Your task to perform on an android device: move an email to a new category in the gmail app Image 0: 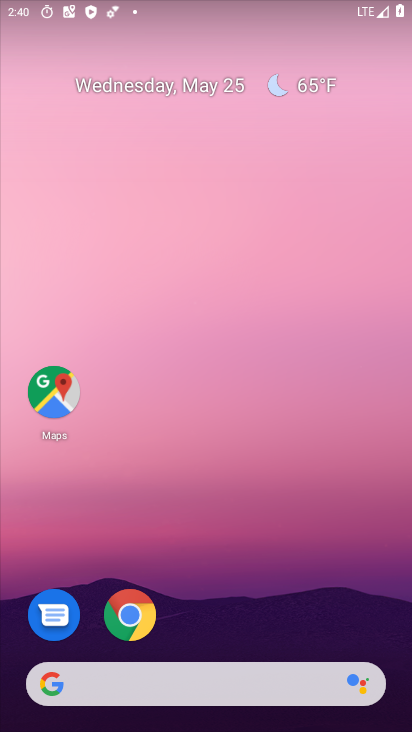
Step 0: click (317, 546)
Your task to perform on an android device: move an email to a new category in the gmail app Image 1: 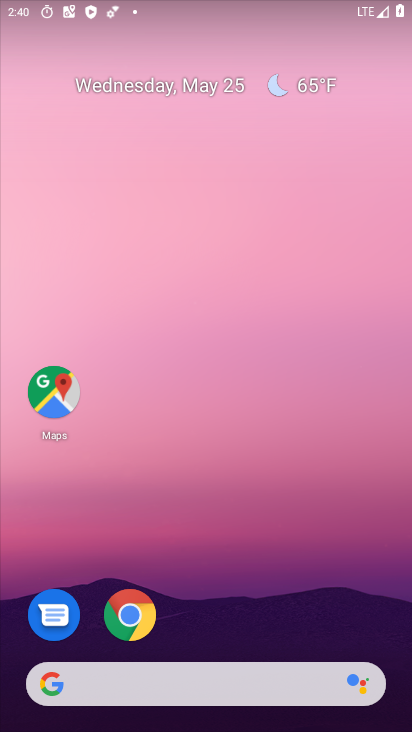
Step 1: drag from (403, 680) to (385, 212)
Your task to perform on an android device: move an email to a new category in the gmail app Image 2: 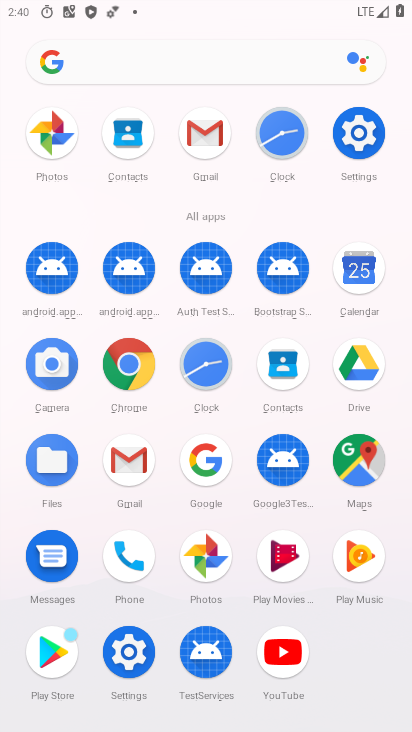
Step 2: click (120, 457)
Your task to perform on an android device: move an email to a new category in the gmail app Image 3: 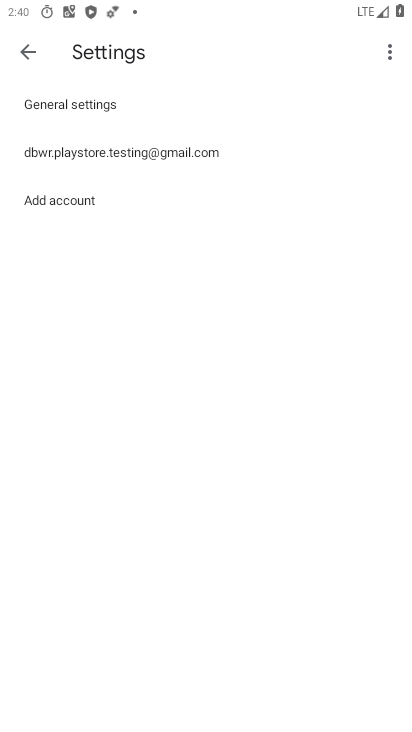
Step 3: click (24, 48)
Your task to perform on an android device: move an email to a new category in the gmail app Image 4: 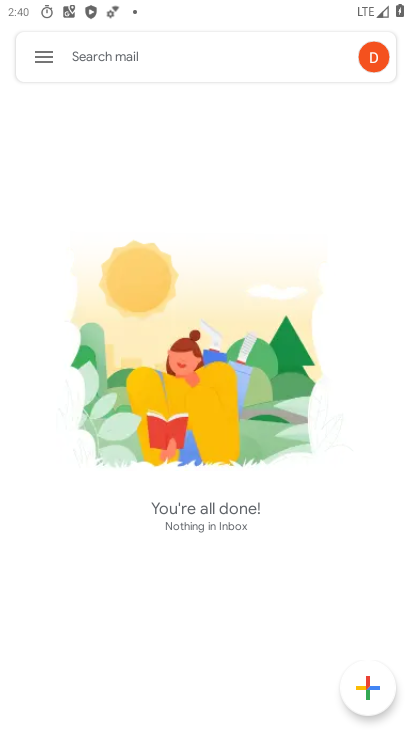
Step 4: click (44, 55)
Your task to perform on an android device: move an email to a new category in the gmail app Image 5: 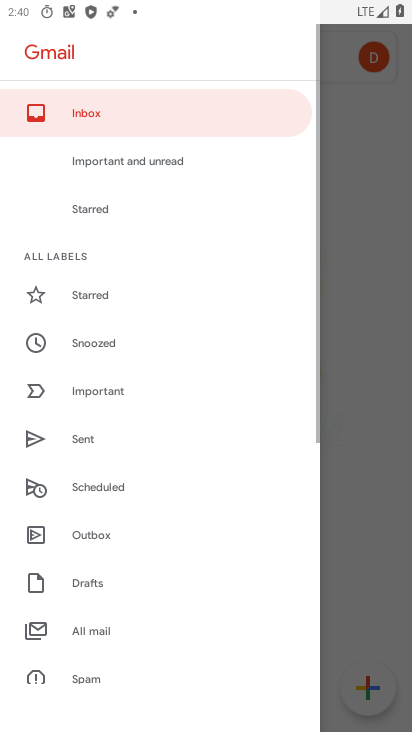
Step 5: click (90, 113)
Your task to perform on an android device: move an email to a new category in the gmail app Image 6: 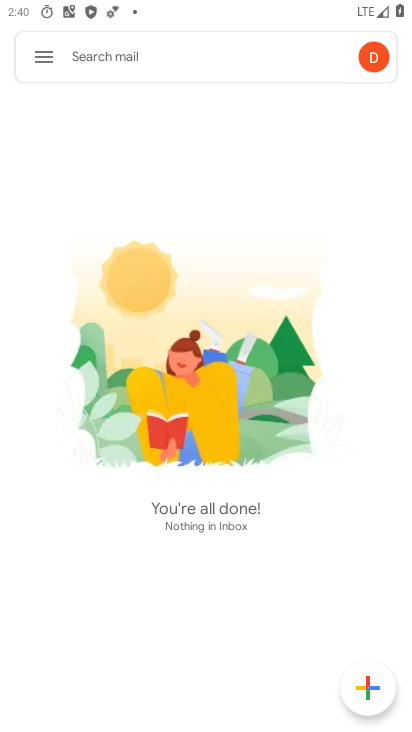
Step 6: task complete